Your task to perform on an android device: toggle sleep mode Image 0: 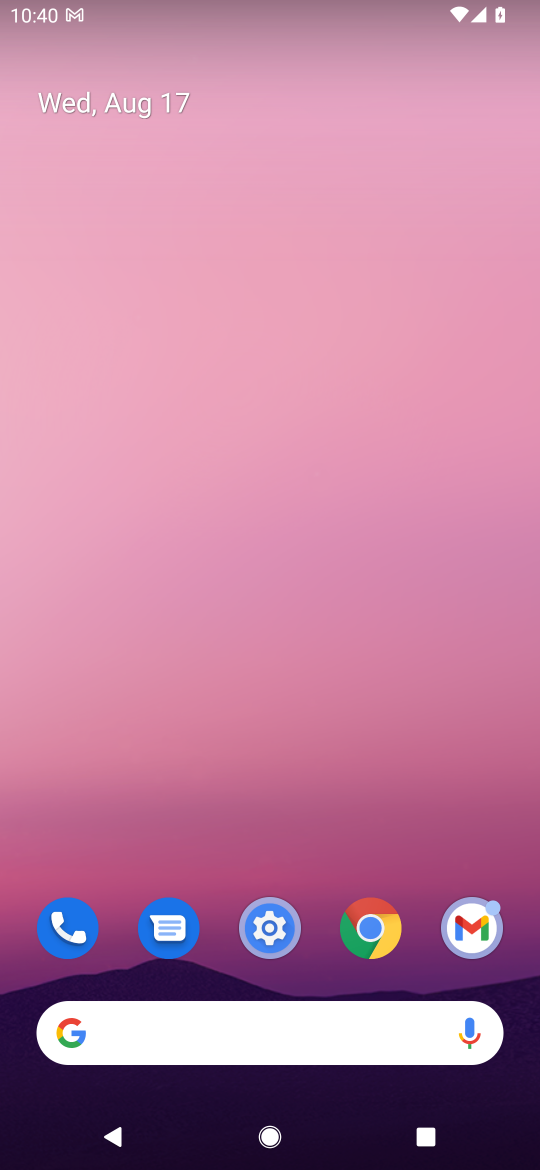
Step 0: drag from (353, 899) to (304, 5)
Your task to perform on an android device: toggle sleep mode Image 1: 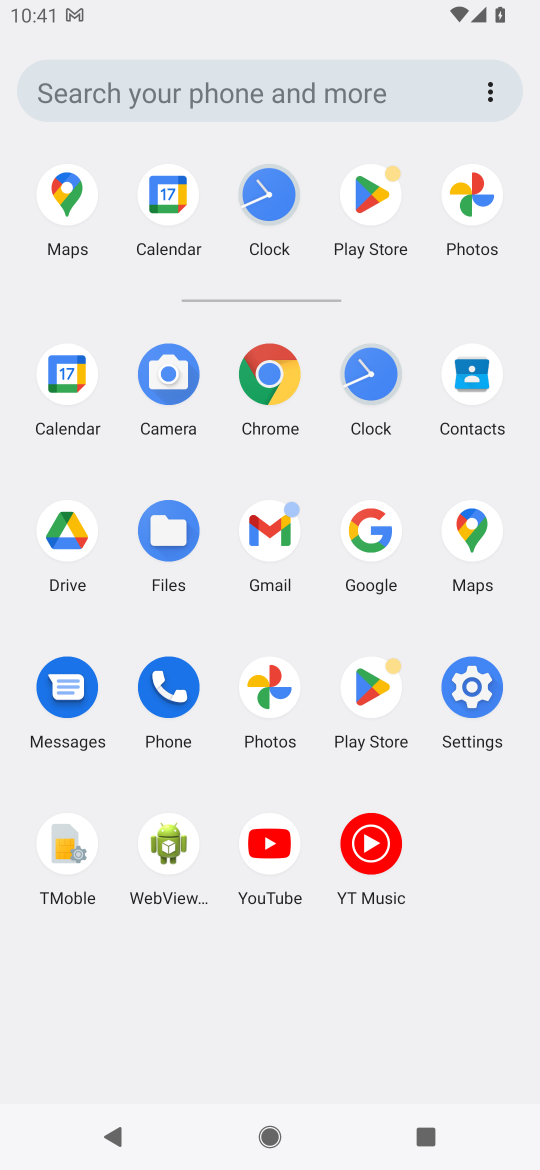
Step 1: click (478, 683)
Your task to perform on an android device: toggle sleep mode Image 2: 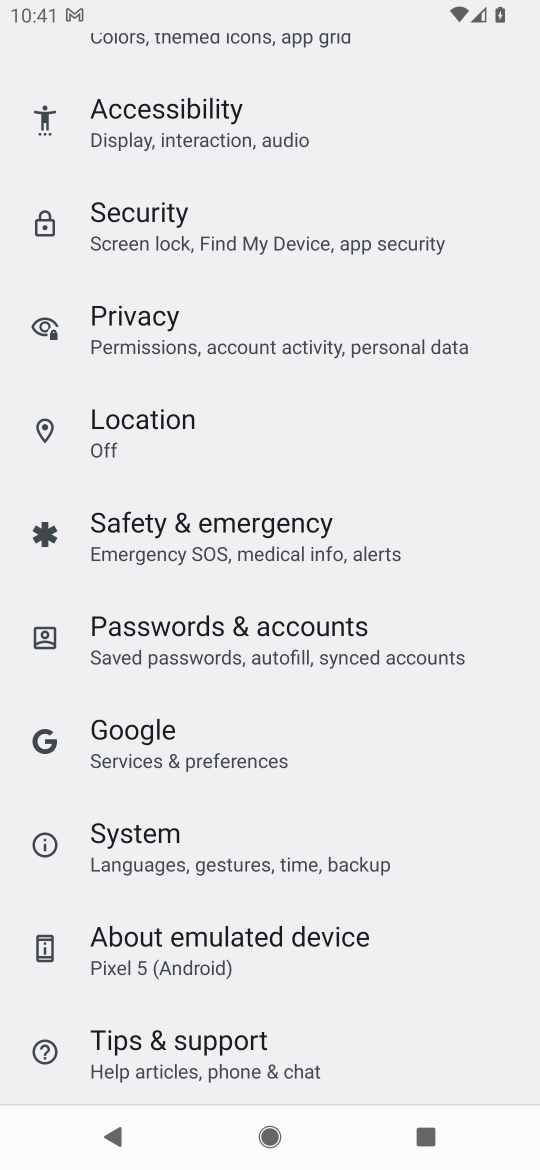
Step 2: drag from (279, 424) to (299, 1081)
Your task to perform on an android device: toggle sleep mode Image 3: 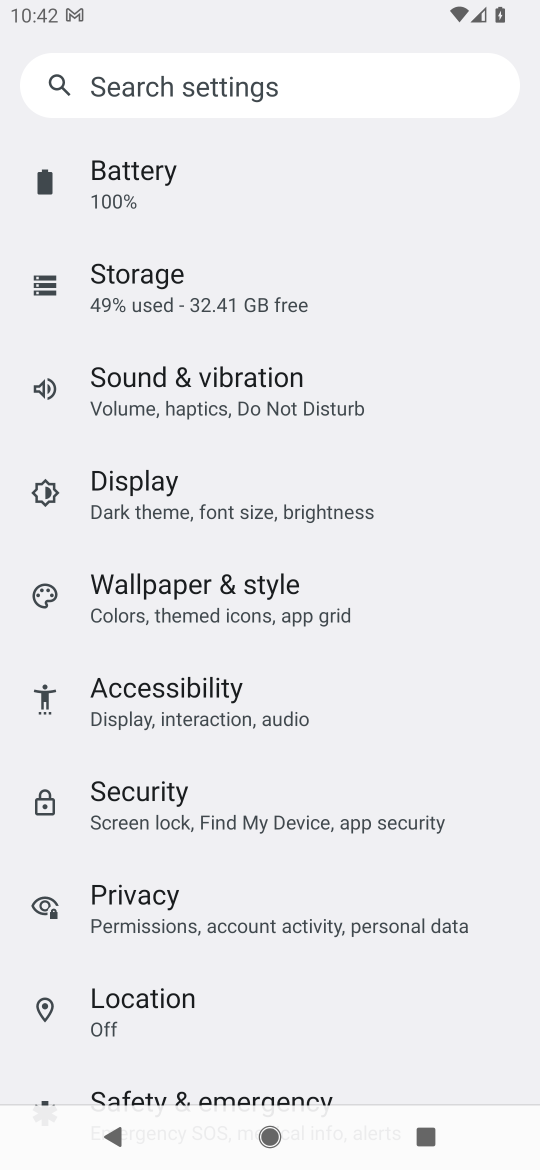
Step 3: click (187, 493)
Your task to perform on an android device: toggle sleep mode Image 4: 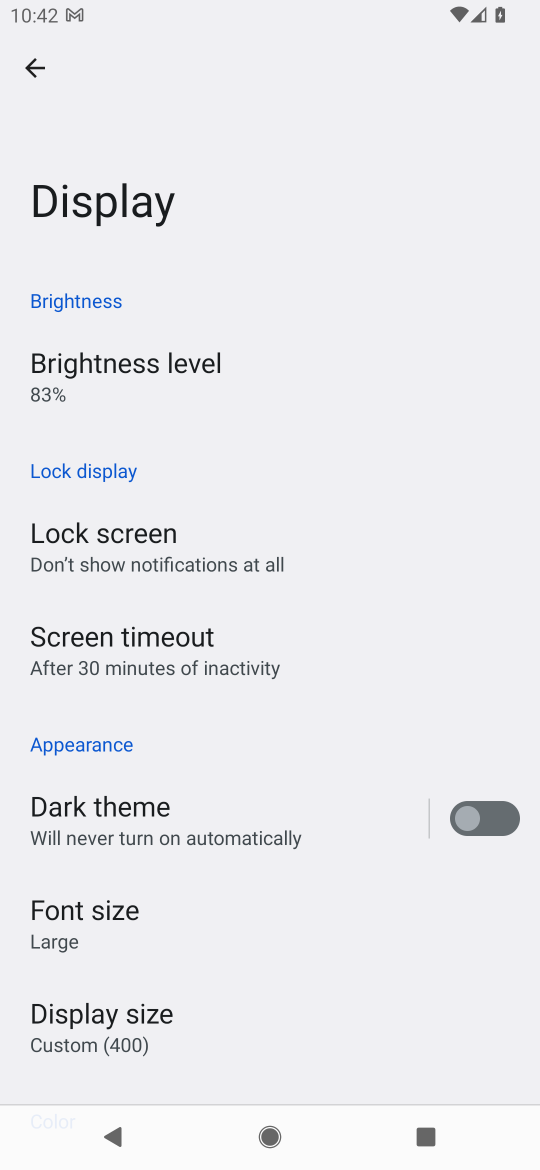
Step 4: task complete